Your task to perform on an android device: When is my next meeting? Image 0: 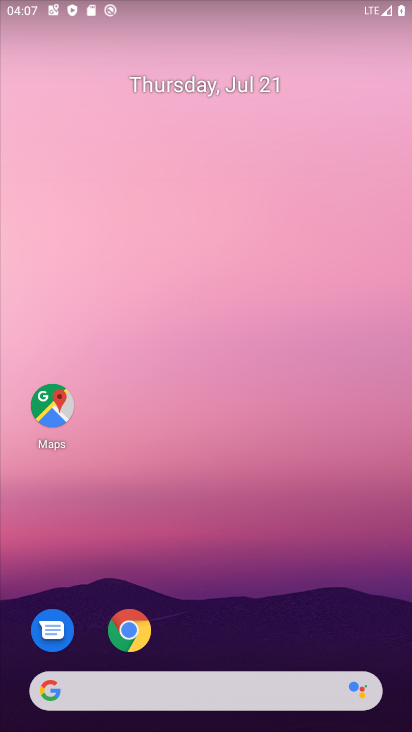
Step 0: click (220, 78)
Your task to perform on an android device: When is my next meeting? Image 1: 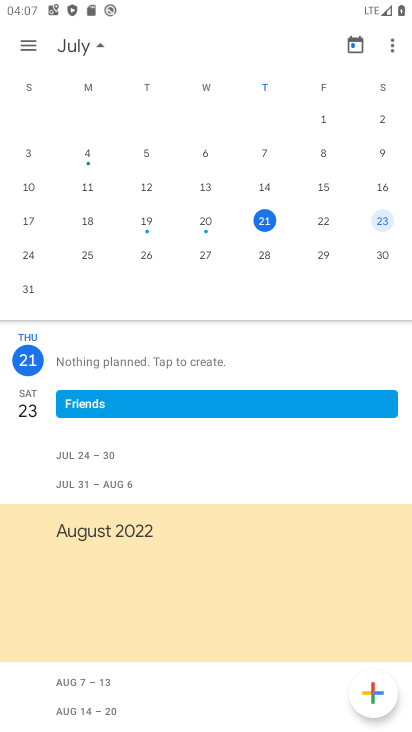
Step 1: task complete